Your task to perform on an android device: turn on showing notifications on the lock screen Image 0: 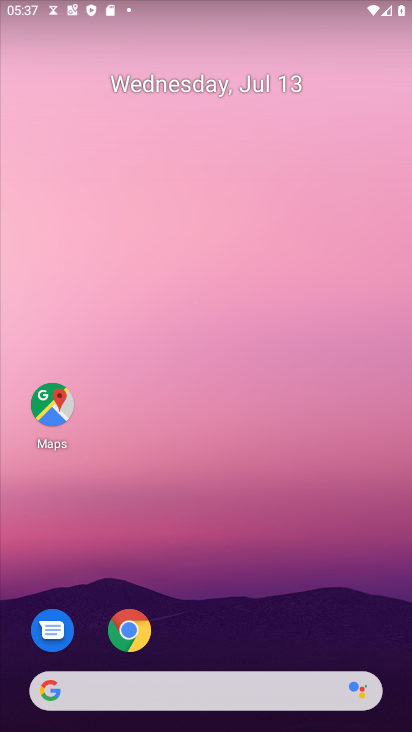
Step 0: drag from (303, 681) to (320, 134)
Your task to perform on an android device: turn on showing notifications on the lock screen Image 1: 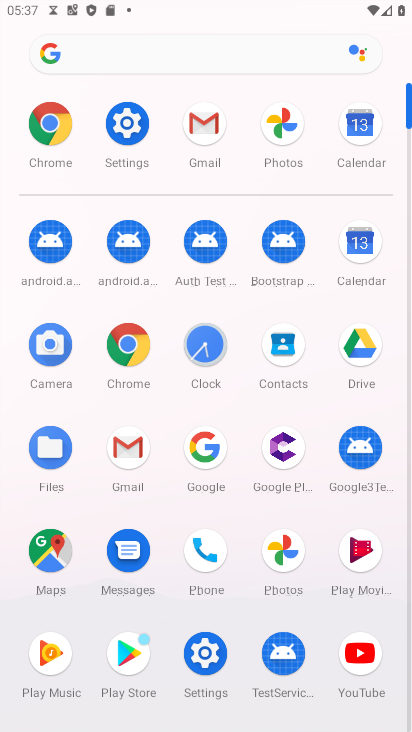
Step 1: click (121, 117)
Your task to perform on an android device: turn on showing notifications on the lock screen Image 2: 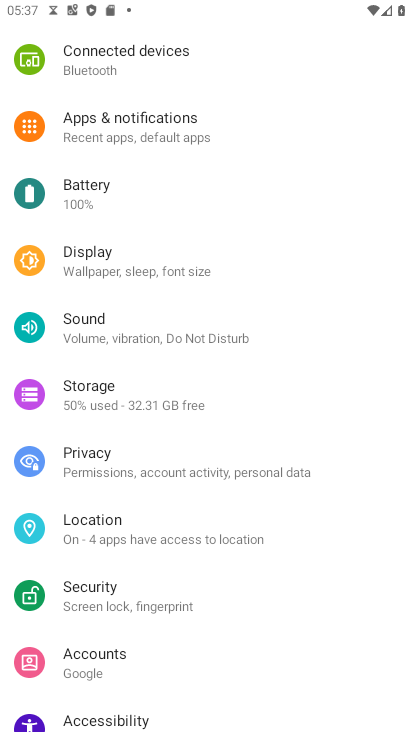
Step 2: click (197, 130)
Your task to perform on an android device: turn on showing notifications on the lock screen Image 3: 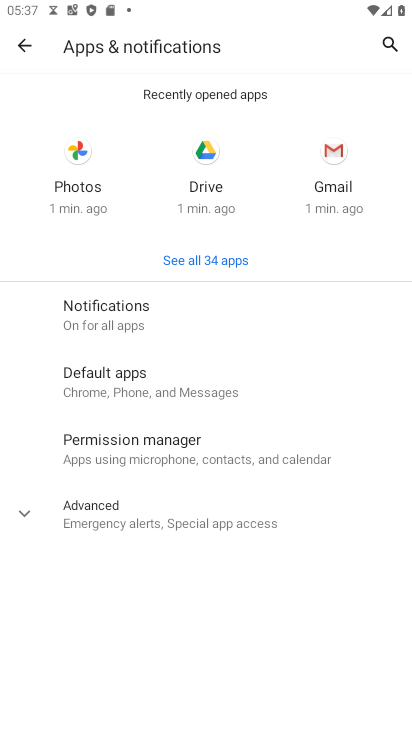
Step 3: click (87, 303)
Your task to perform on an android device: turn on showing notifications on the lock screen Image 4: 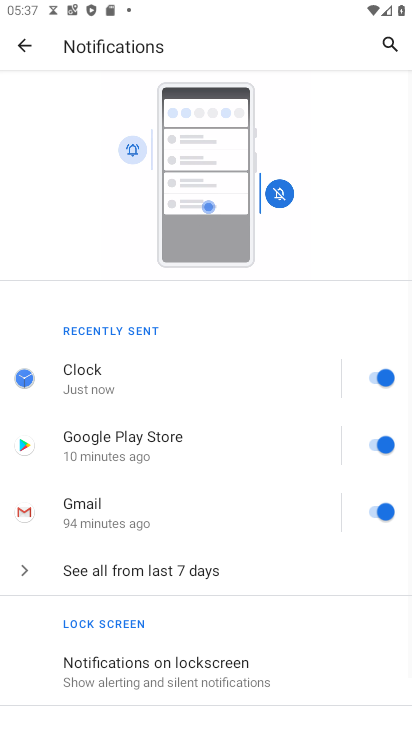
Step 4: click (194, 667)
Your task to perform on an android device: turn on showing notifications on the lock screen Image 5: 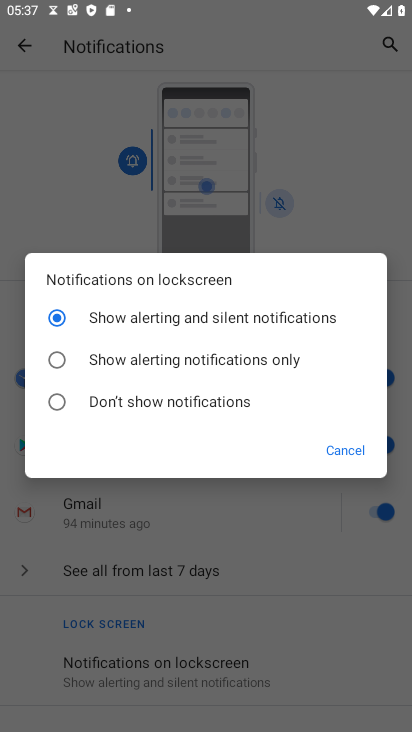
Step 5: task complete